Your task to perform on an android device: Go to Android settings Image 0: 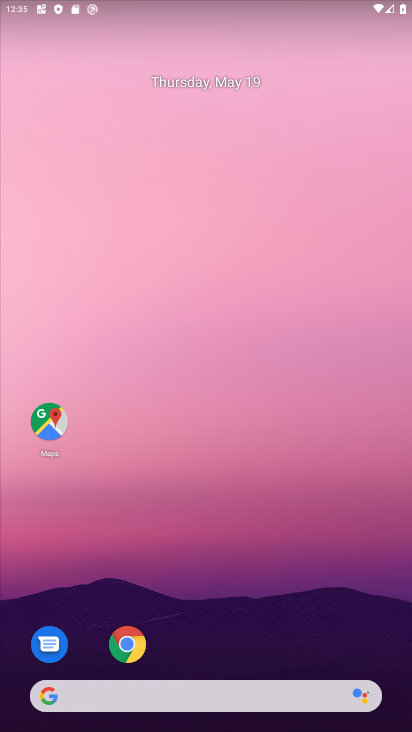
Step 0: drag from (359, 595) to (349, 132)
Your task to perform on an android device: Go to Android settings Image 1: 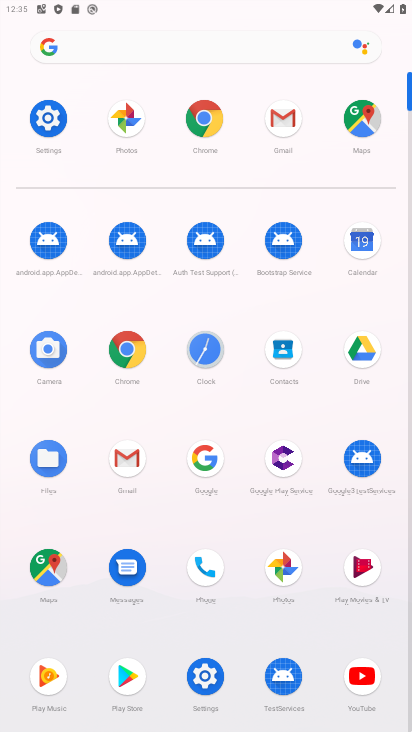
Step 1: click (198, 688)
Your task to perform on an android device: Go to Android settings Image 2: 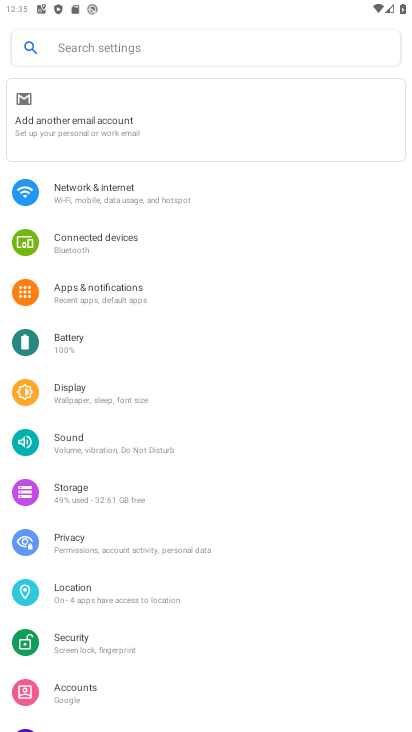
Step 2: task complete